Your task to perform on an android device: turn on the 12-hour format for clock Image 0: 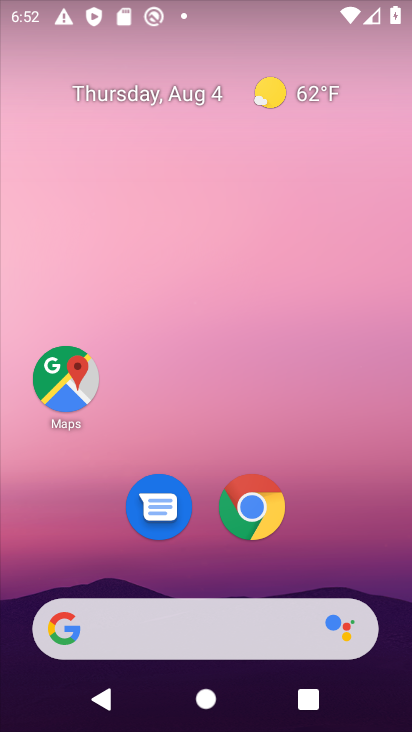
Step 0: drag from (404, 626) to (249, 46)
Your task to perform on an android device: turn on the 12-hour format for clock Image 1: 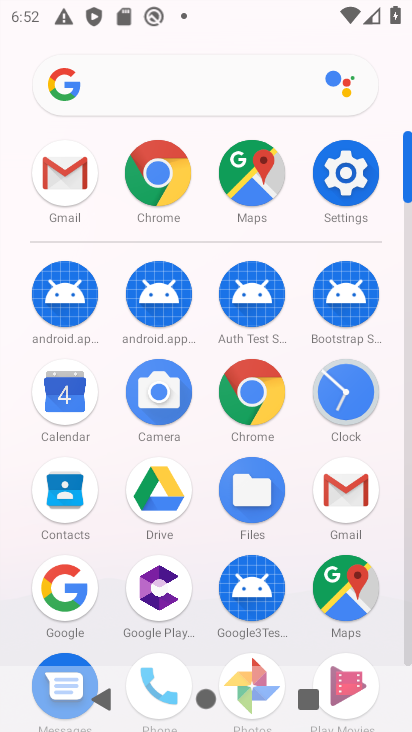
Step 1: click (337, 397)
Your task to perform on an android device: turn on the 12-hour format for clock Image 2: 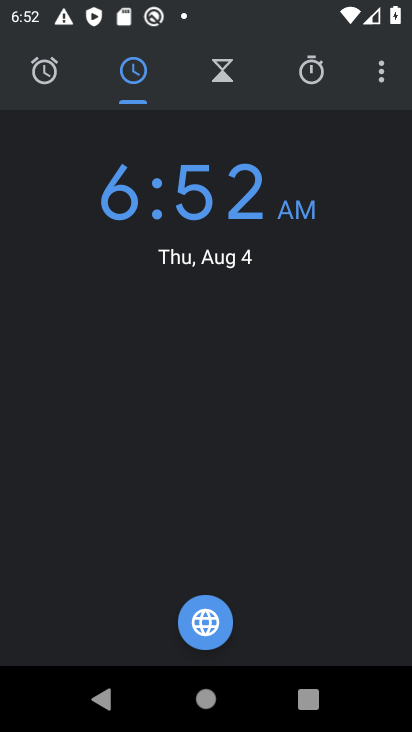
Step 2: click (387, 57)
Your task to perform on an android device: turn on the 12-hour format for clock Image 3: 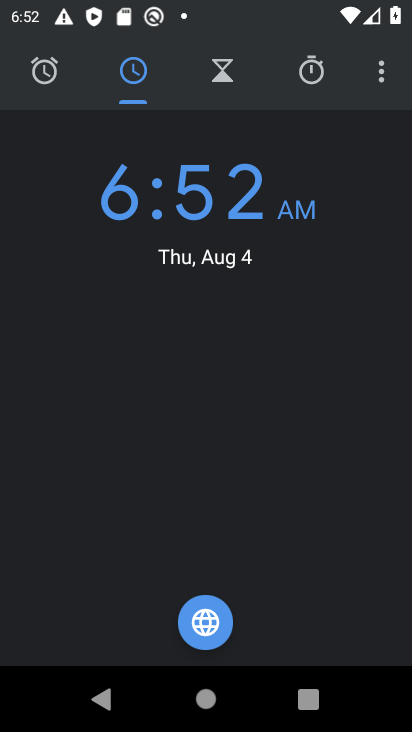
Step 3: click (375, 70)
Your task to perform on an android device: turn on the 12-hour format for clock Image 4: 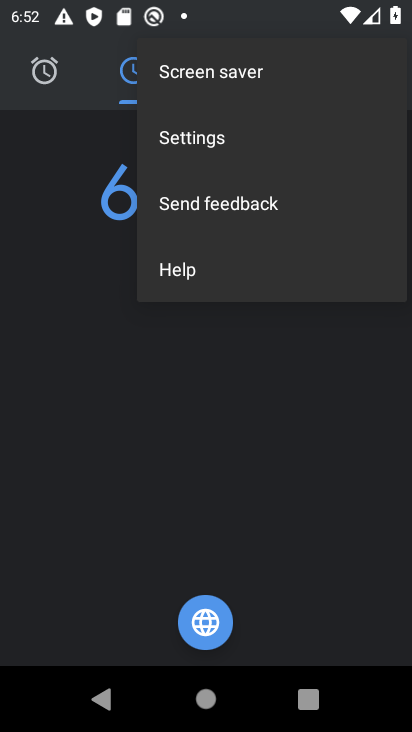
Step 4: click (273, 144)
Your task to perform on an android device: turn on the 12-hour format for clock Image 5: 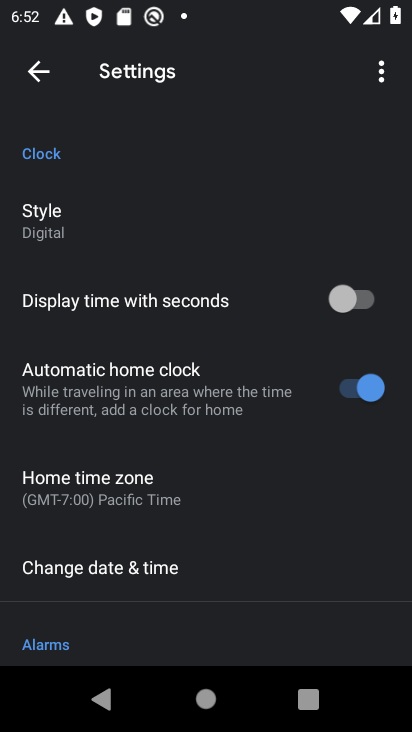
Step 5: click (171, 565)
Your task to perform on an android device: turn on the 12-hour format for clock Image 6: 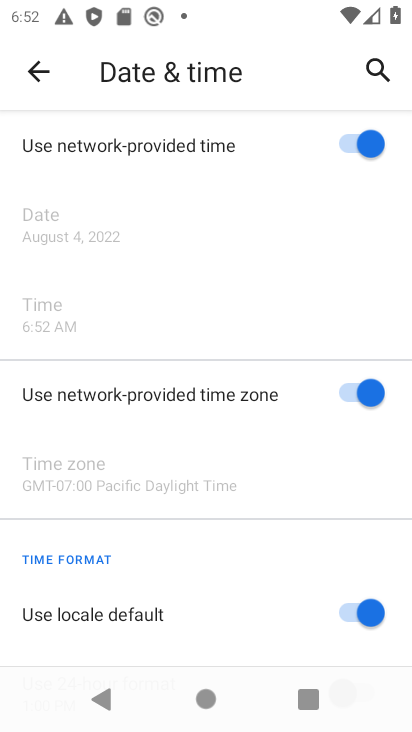
Step 6: task complete